Your task to perform on an android device: Open the Play Movies app and select the watchlist tab. Image 0: 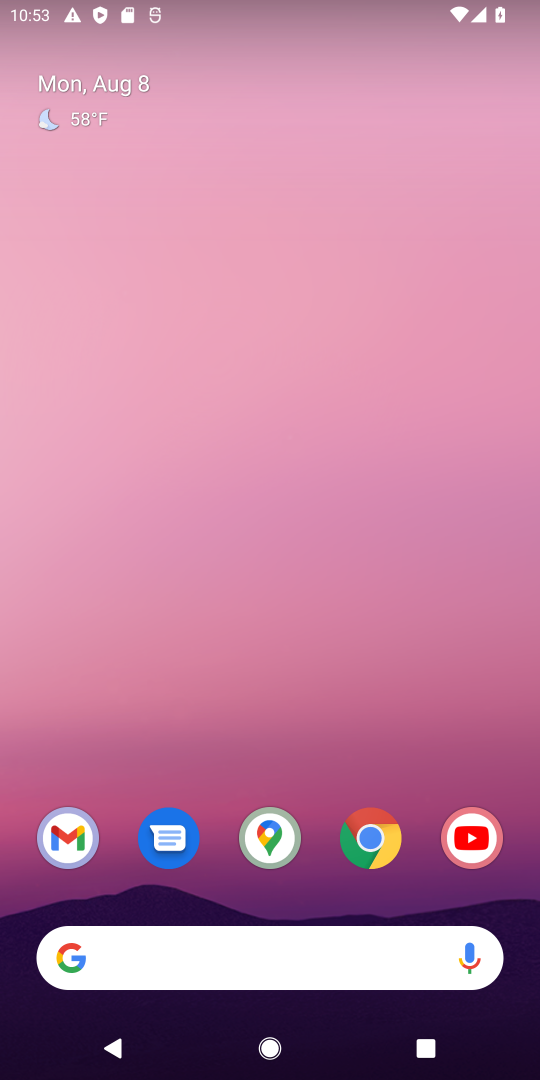
Step 0: press home button
Your task to perform on an android device: Open the Play Movies app and select the watchlist tab. Image 1: 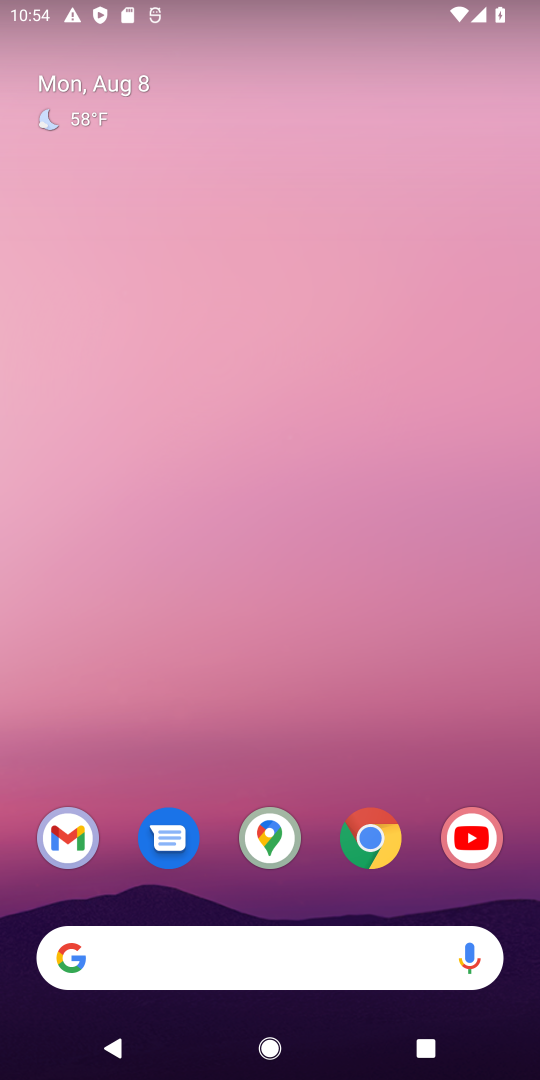
Step 1: task complete